Your task to perform on an android device: Open location settings Image 0: 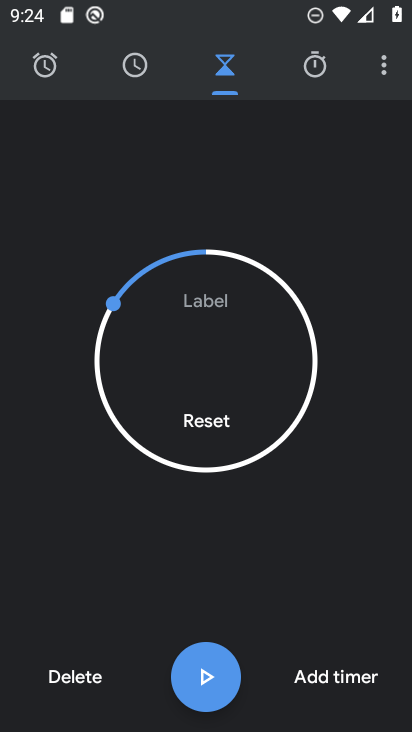
Step 0: press home button
Your task to perform on an android device: Open location settings Image 1: 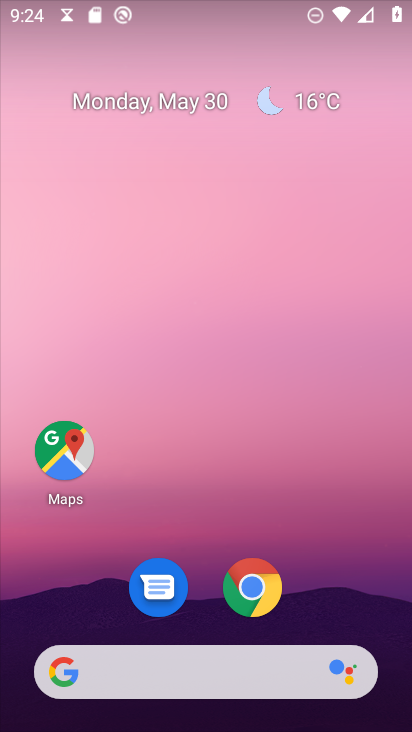
Step 1: drag from (183, 680) to (284, 31)
Your task to perform on an android device: Open location settings Image 2: 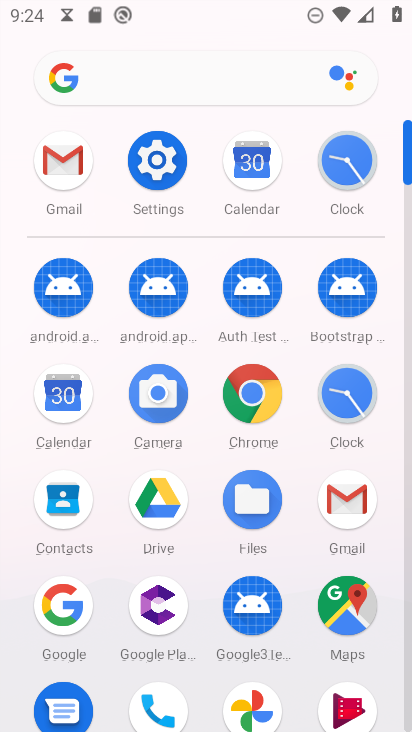
Step 2: click (168, 158)
Your task to perform on an android device: Open location settings Image 3: 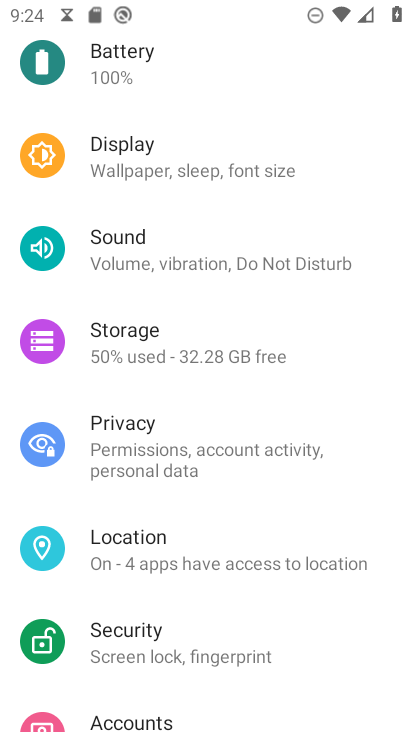
Step 3: click (107, 549)
Your task to perform on an android device: Open location settings Image 4: 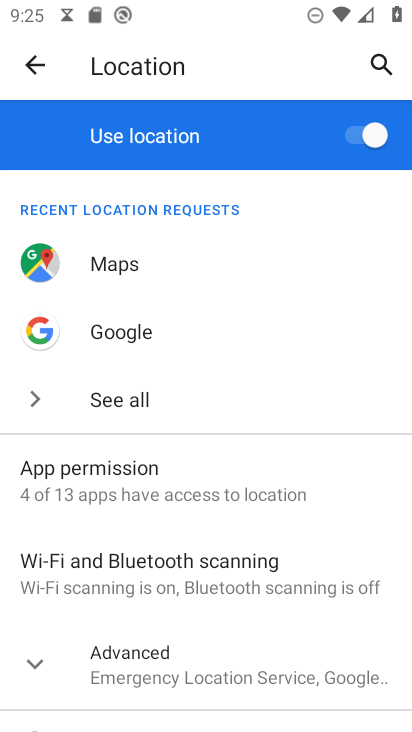
Step 4: task complete